Your task to perform on an android device: open a bookmark in the chrome app Image 0: 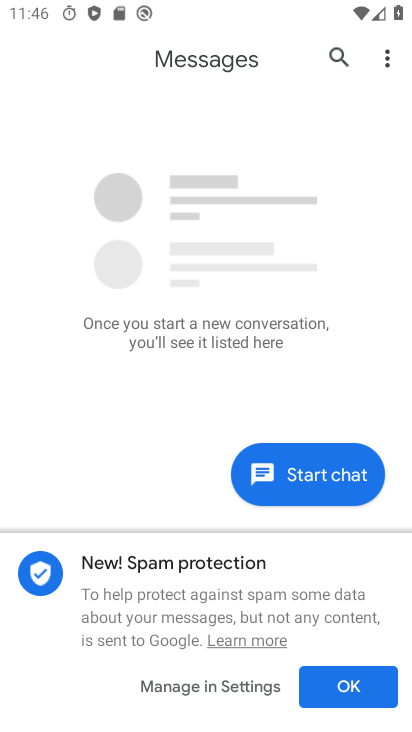
Step 0: press home button
Your task to perform on an android device: open a bookmark in the chrome app Image 1: 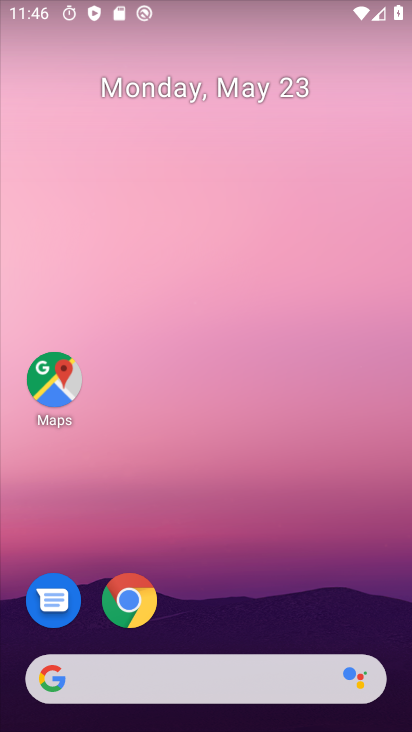
Step 1: click (127, 599)
Your task to perform on an android device: open a bookmark in the chrome app Image 2: 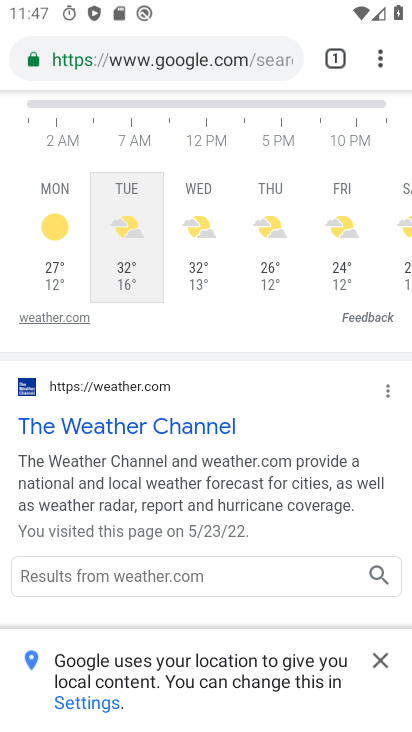
Step 2: drag from (286, 150) to (255, 457)
Your task to perform on an android device: open a bookmark in the chrome app Image 3: 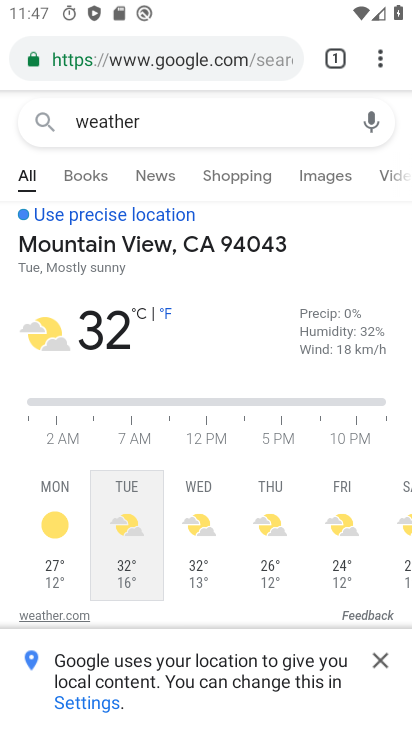
Step 3: click (382, 47)
Your task to perform on an android device: open a bookmark in the chrome app Image 4: 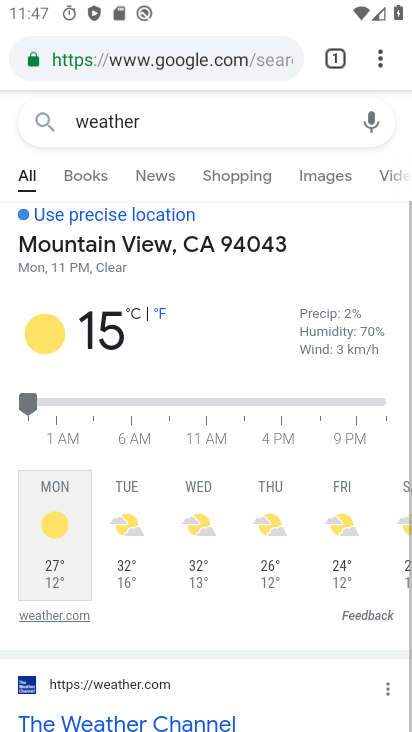
Step 4: task complete